Your task to perform on an android device: check the backup settings in the google photos Image 0: 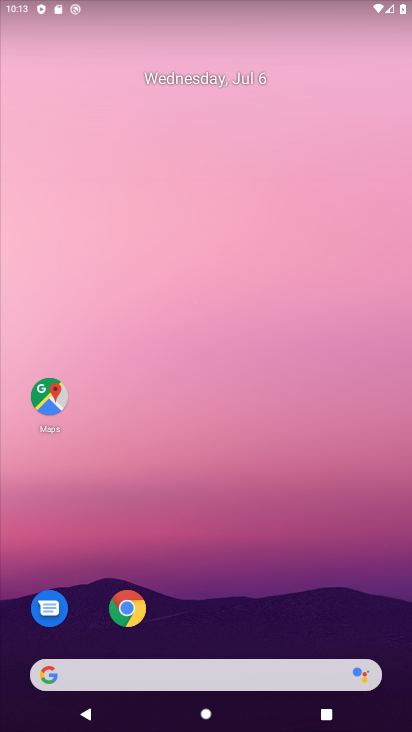
Step 0: drag from (191, 645) to (171, 30)
Your task to perform on an android device: check the backup settings in the google photos Image 1: 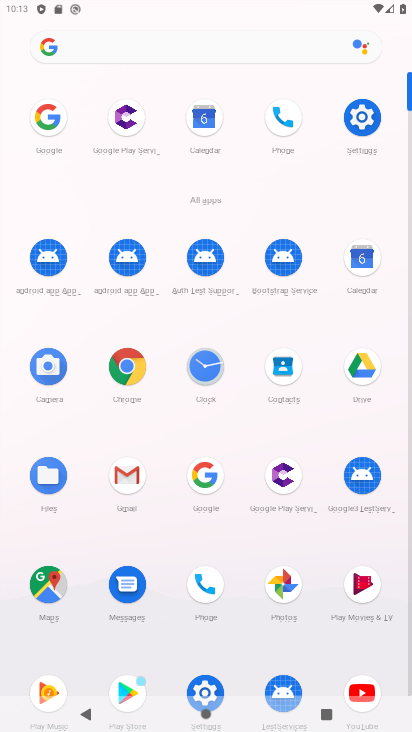
Step 1: click (275, 571)
Your task to perform on an android device: check the backup settings in the google photos Image 2: 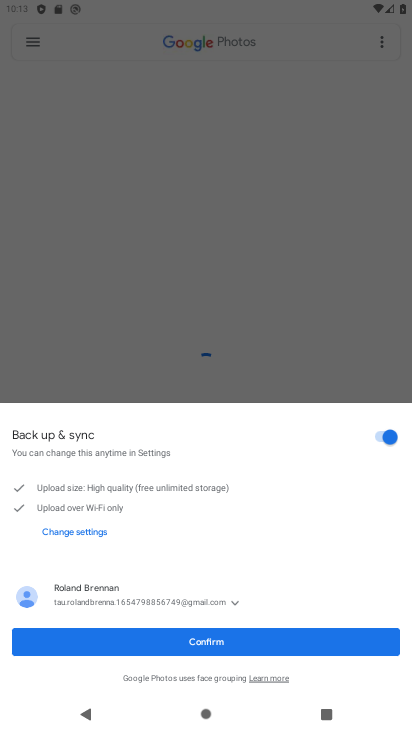
Step 2: click (71, 527)
Your task to perform on an android device: check the backup settings in the google photos Image 3: 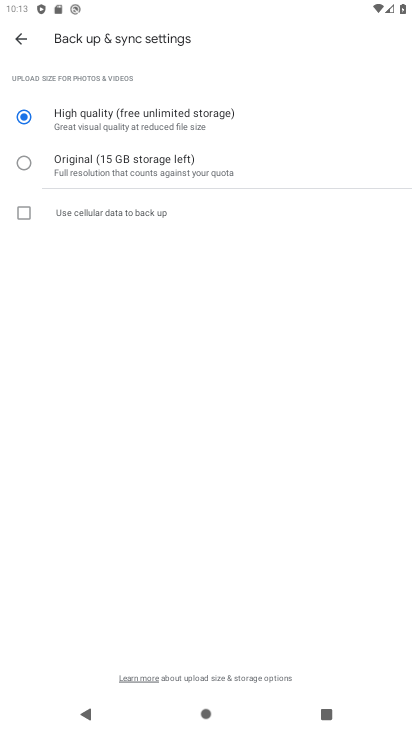
Step 3: task complete